Your task to perform on an android device: Is it going to rain this weekend? Image 0: 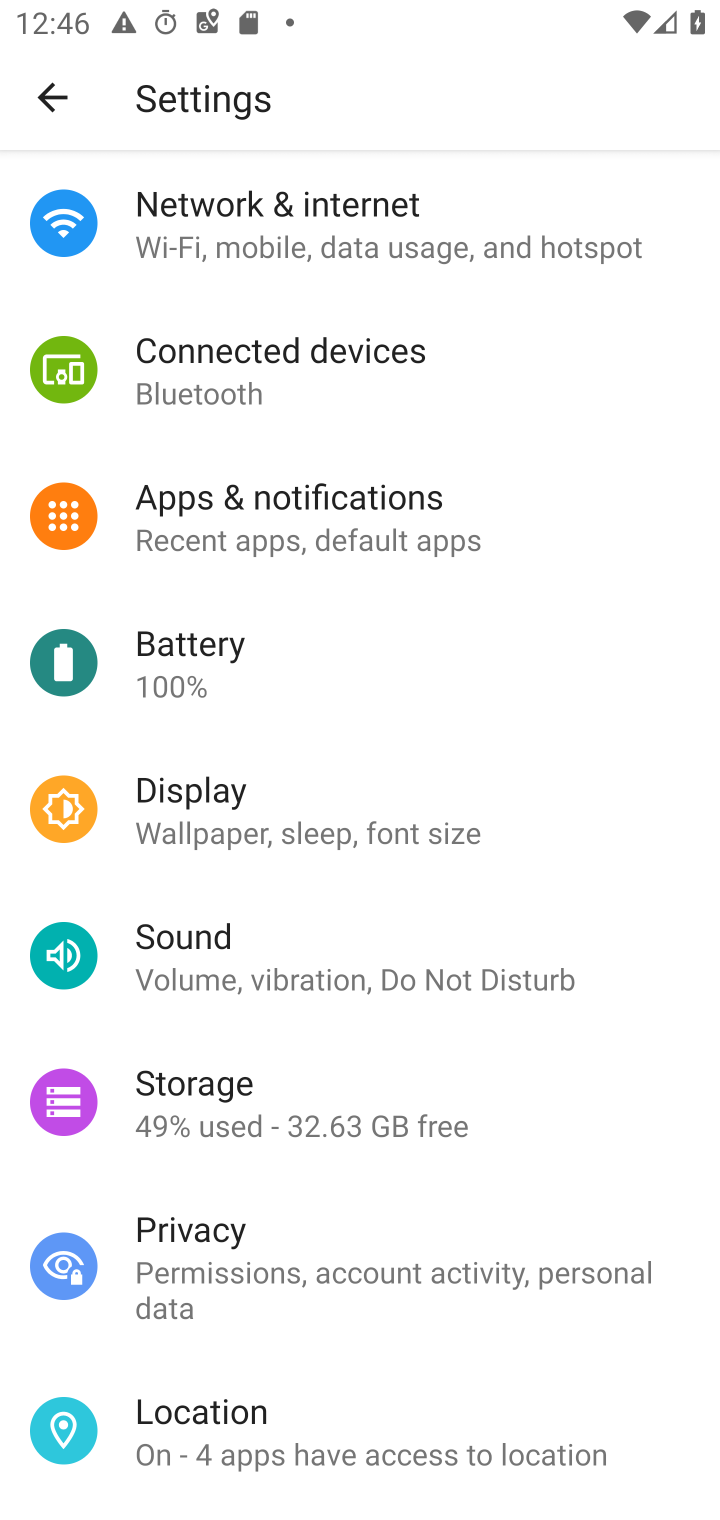
Step 0: press home button
Your task to perform on an android device: Is it going to rain this weekend? Image 1: 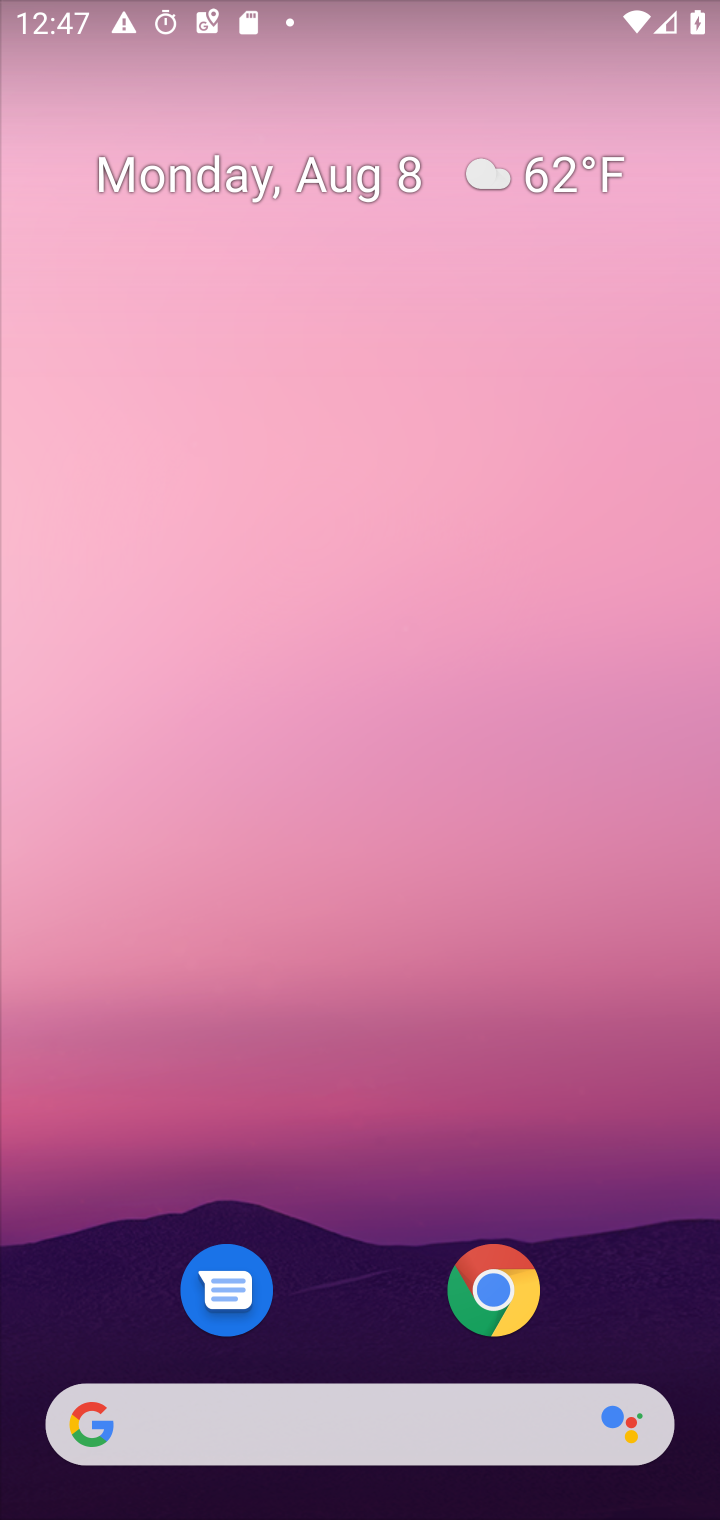
Step 1: click (342, 1437)
Your task to perform on an android device: Is it going to rain this weekend? Image 2: 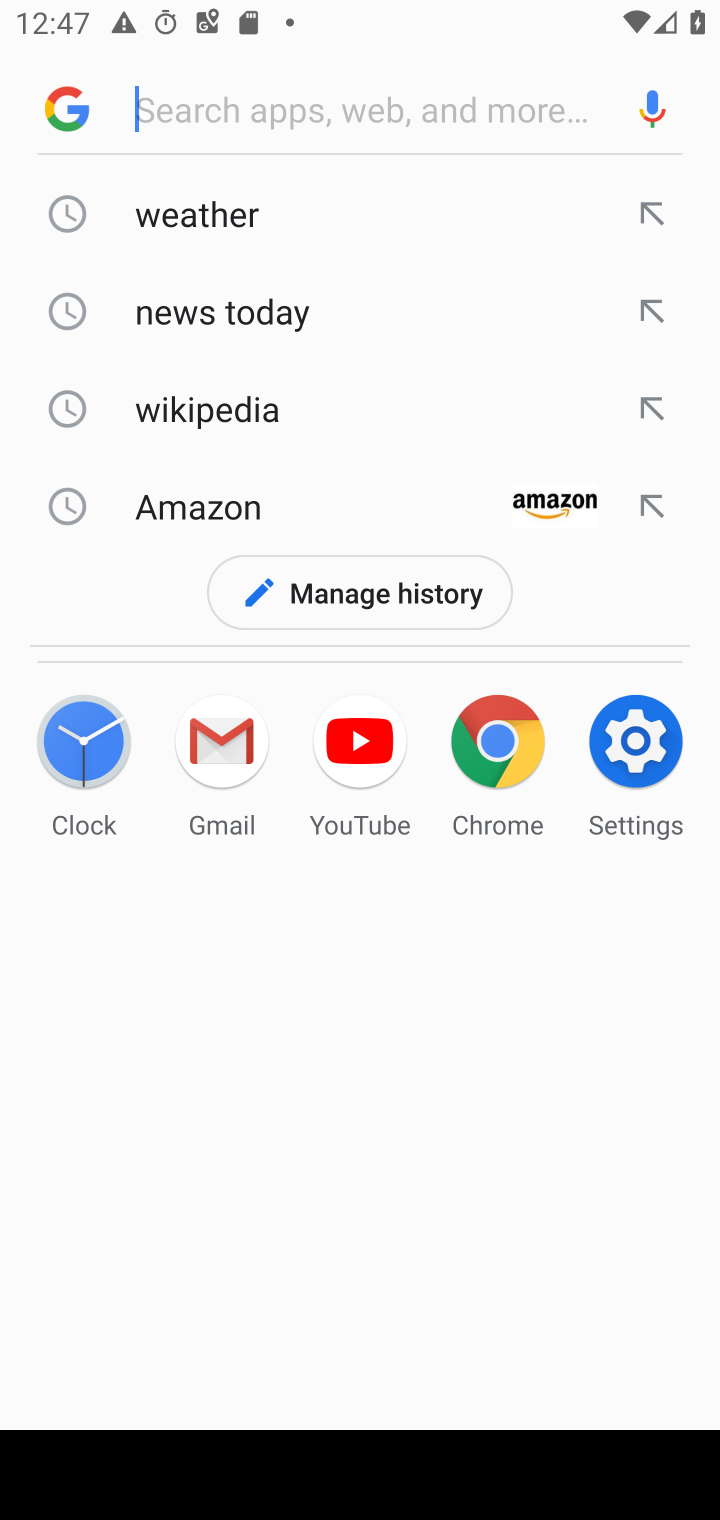
Step 2: click (171, 226)
Your task to perform on an android device: Is it going to rain this weekend? Image 3: 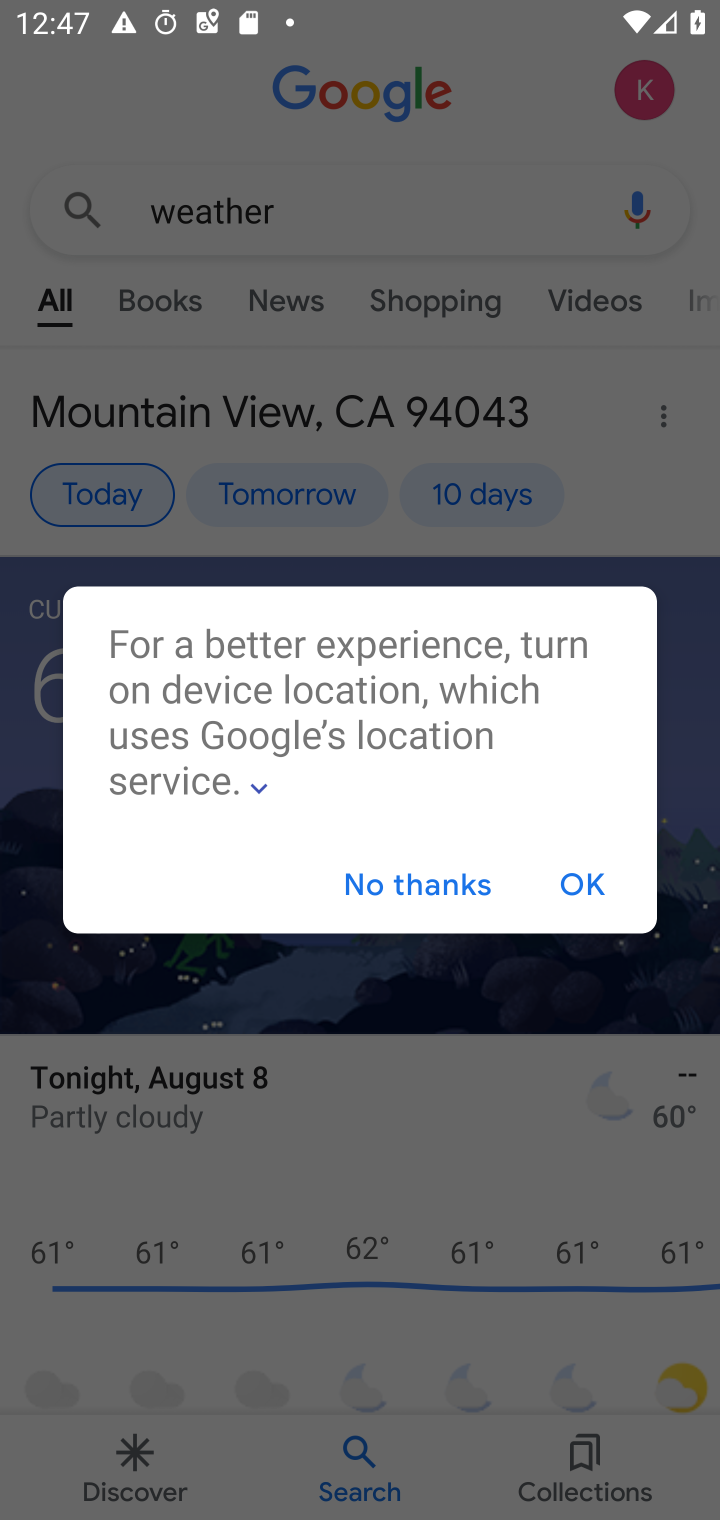
Step 3: click (573, 874)
Your task to perform on an android device: Is it going to rain this weekend? Image 4: 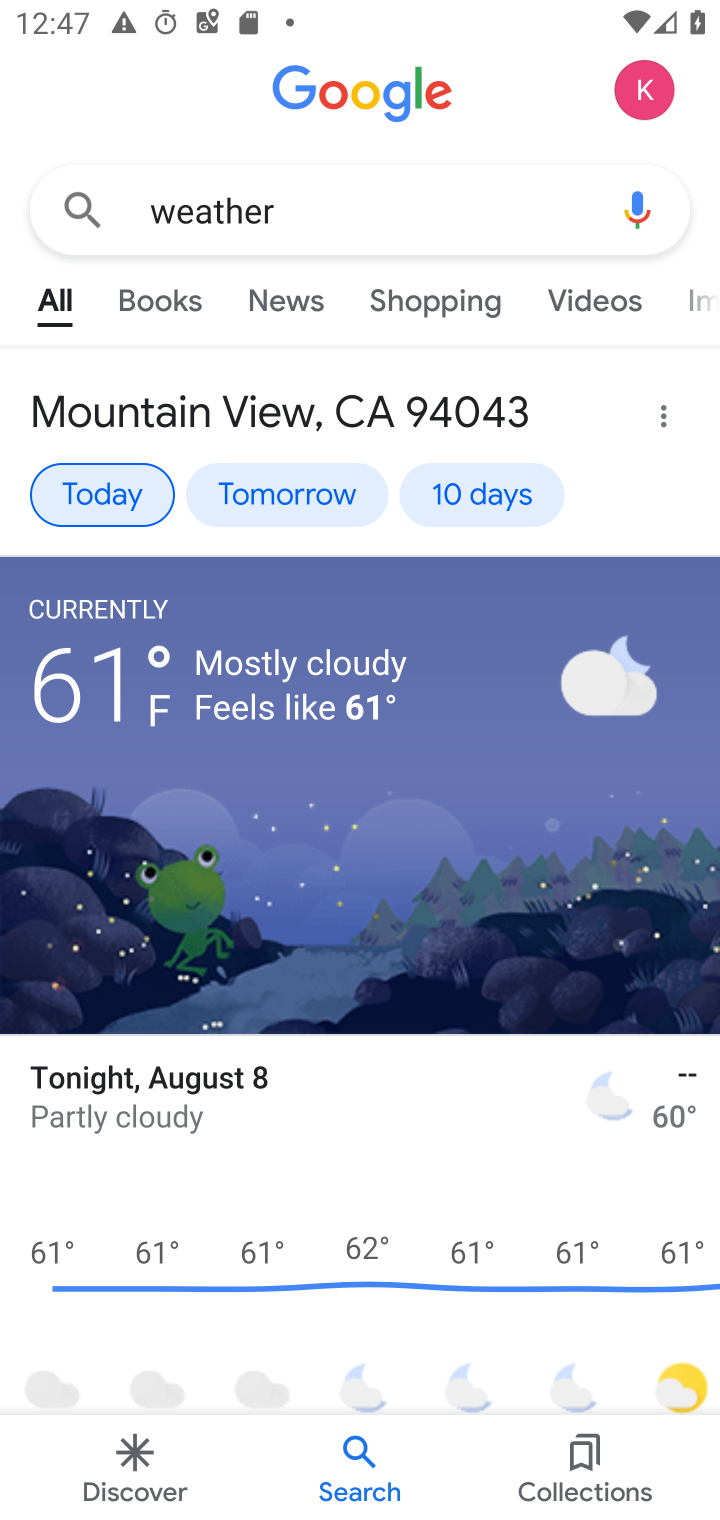
Step 4: click (481, 480)
Your task to perform on an android device: Is it going to rain this weekend? Image 5: 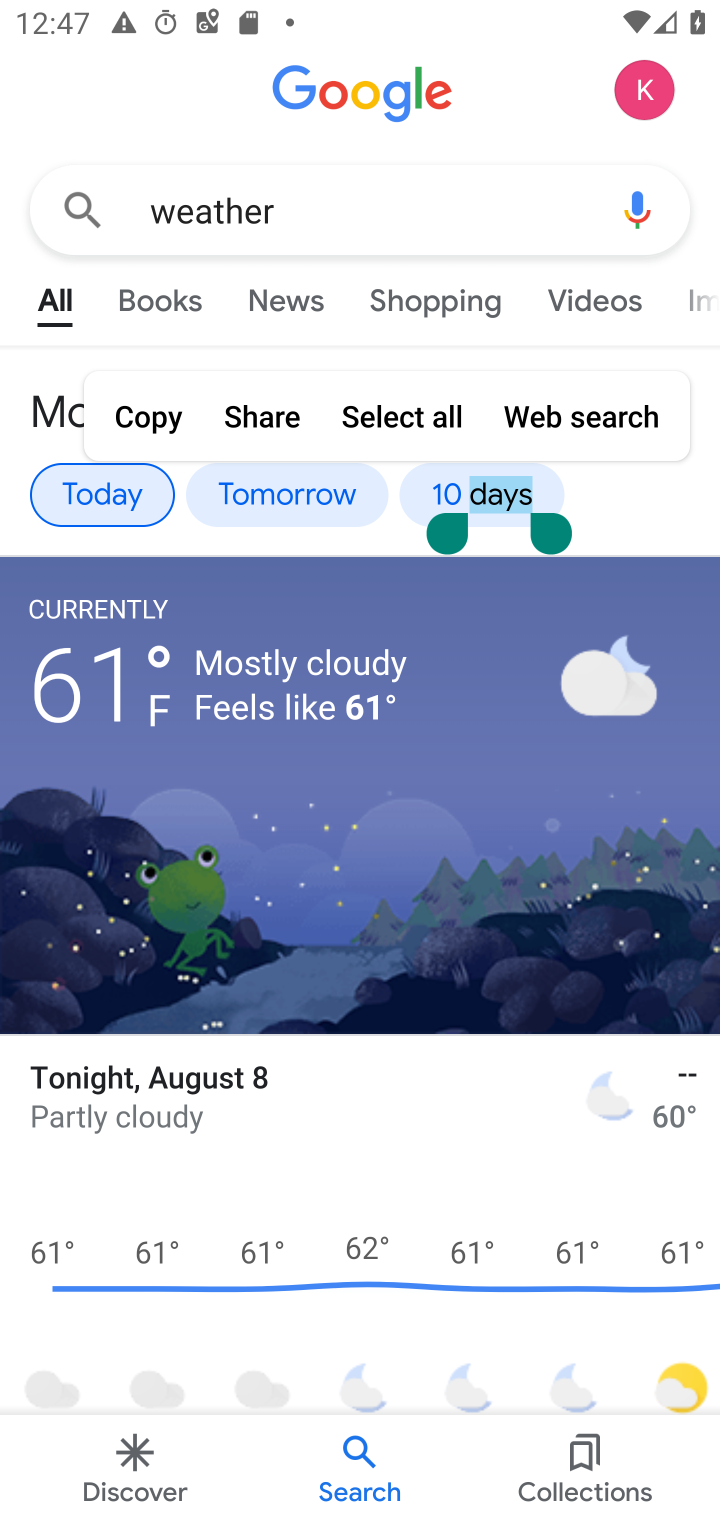
Step 5: click (435, 488)
Your task to perform on an android device: Is it going to rain this weekend? Image 6: 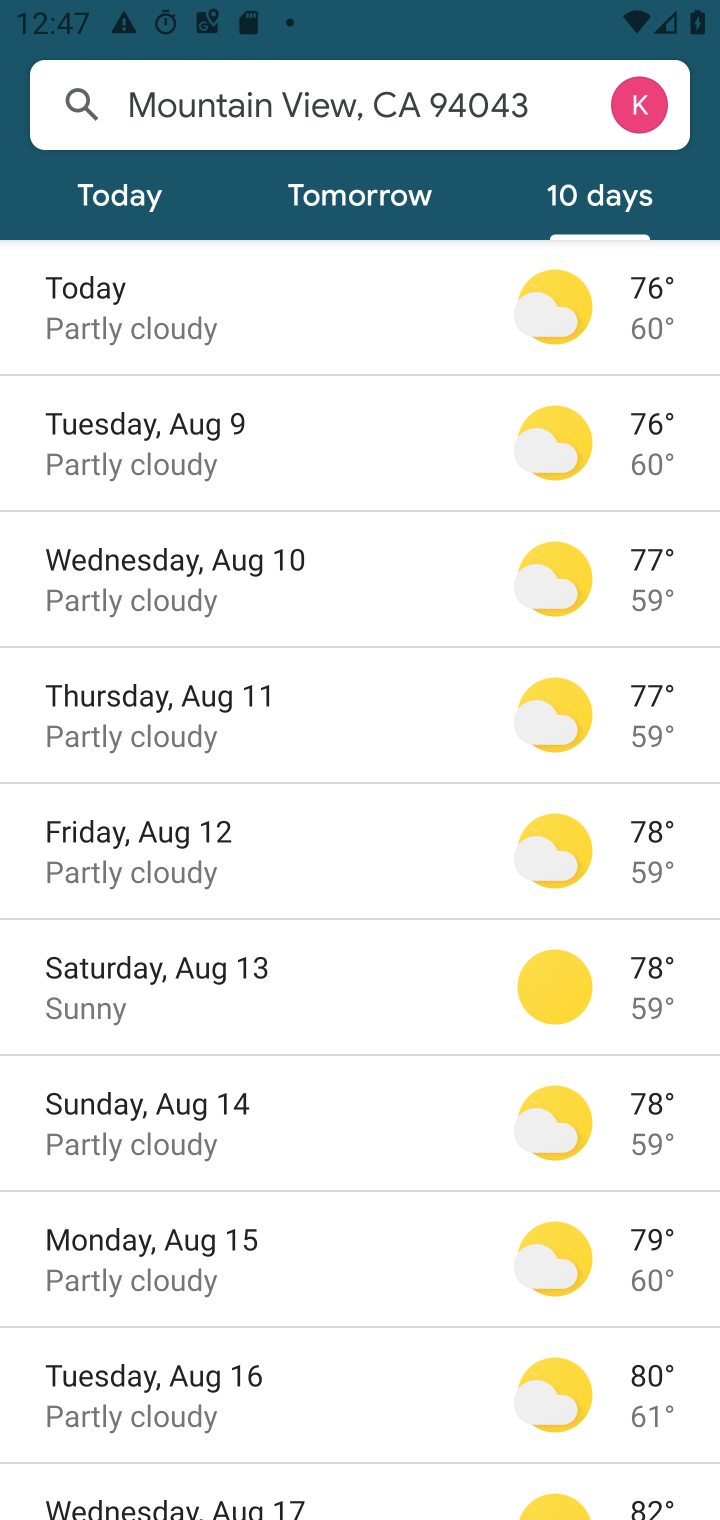
Step 6: drag from (398, 770) to (468, 363)
Your task to perform on an android device: Is it going to rain this weekend? Image 7: 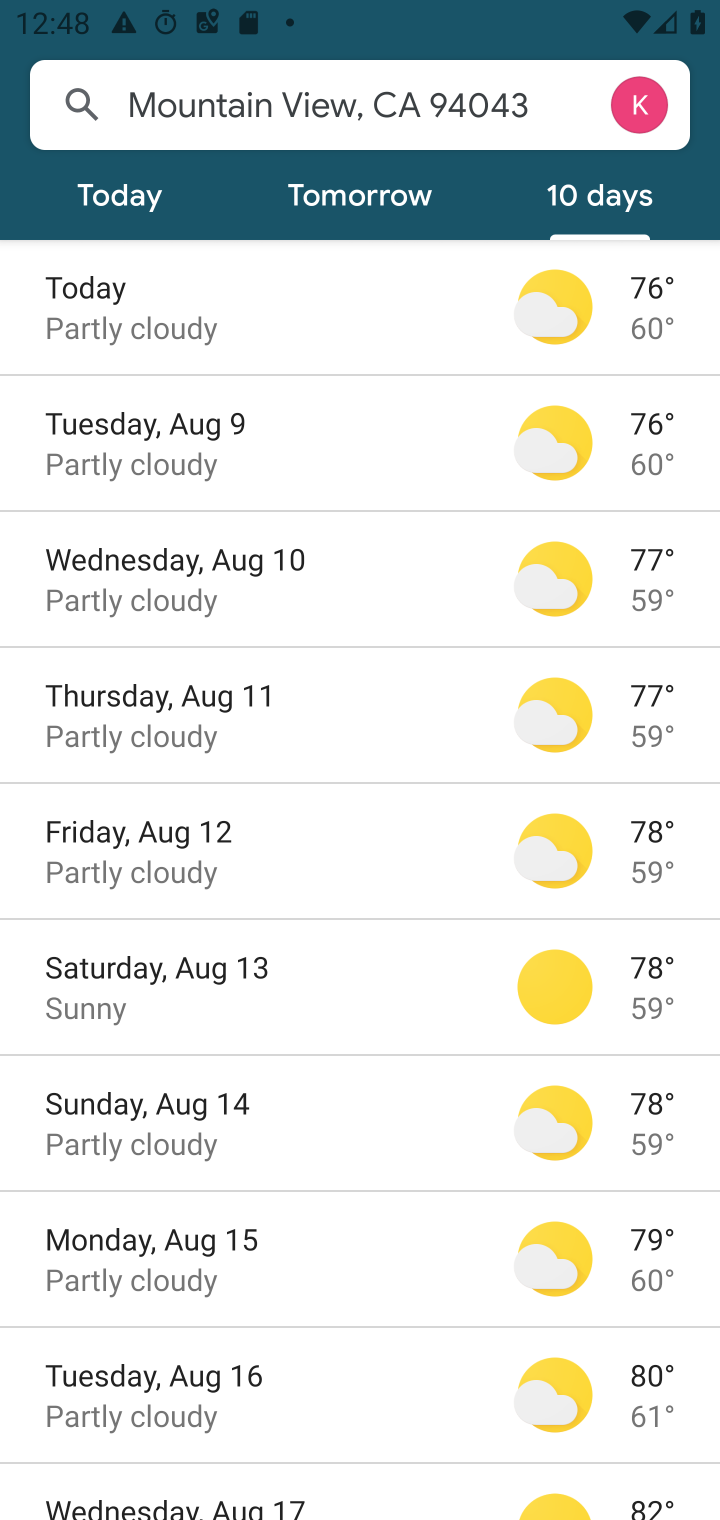
Step 7: click (311, 623)
Your task to perform on an android device: Is it going to rain this weekend? Image 8: 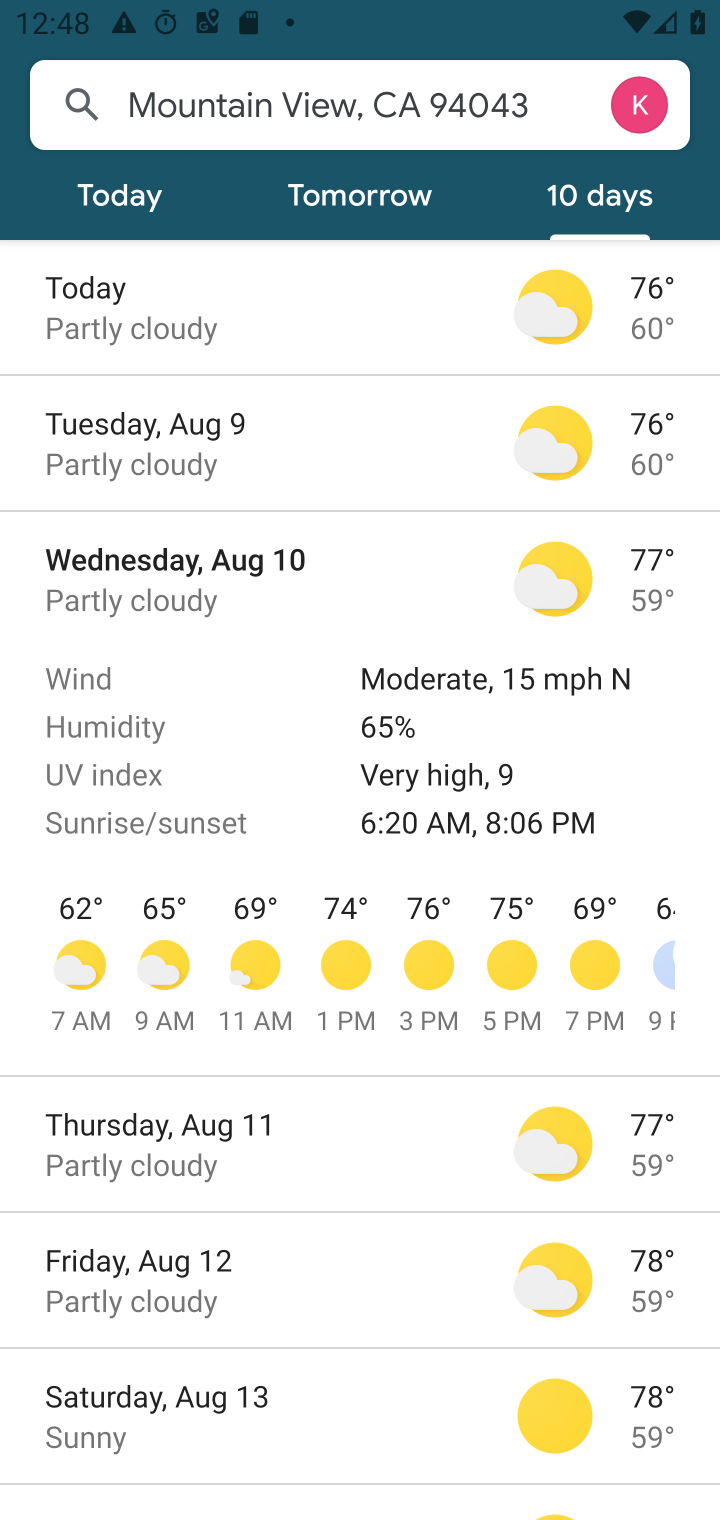
Step 8: task complete